Your task to perform on an android device: Open Yahoo.com Image 0: 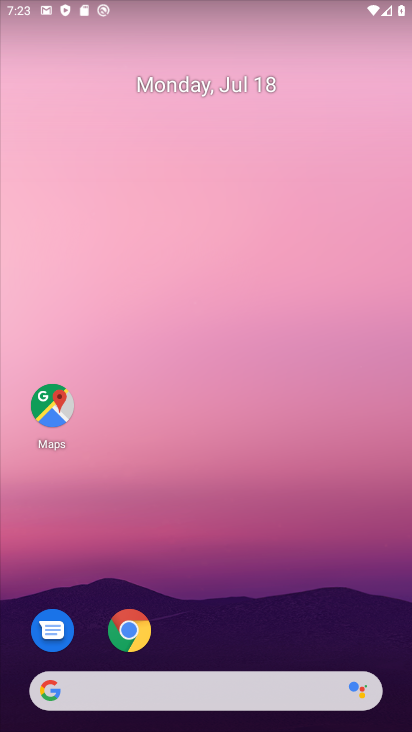
Step 0: drag from (258, 706) to (285, 293)
Your task to perform on an android device: Open Yahoo.com Image 1: 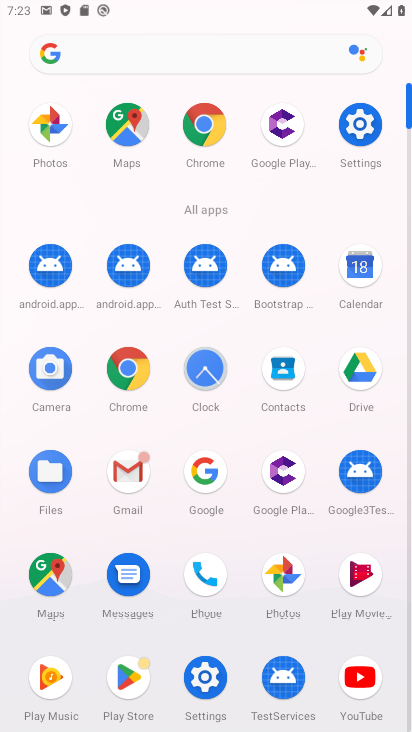
Step 1: click (211, 139)
Your task to perform on an android device: Open Yahoo.com Image 2: 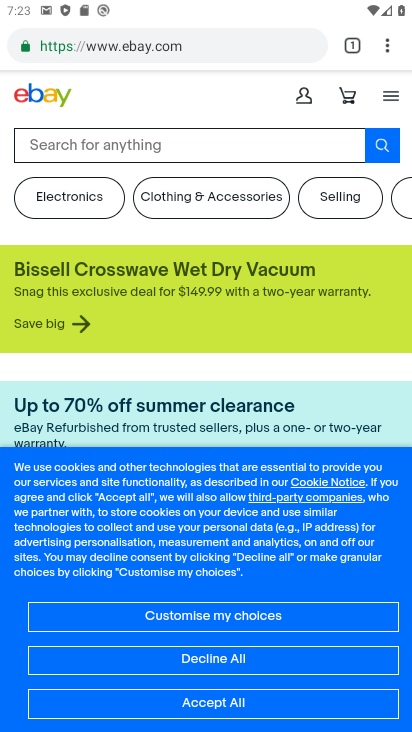
Step 2: click (353, 42)
Your task to perform on an android device: Open Yahoo.com Image 3: 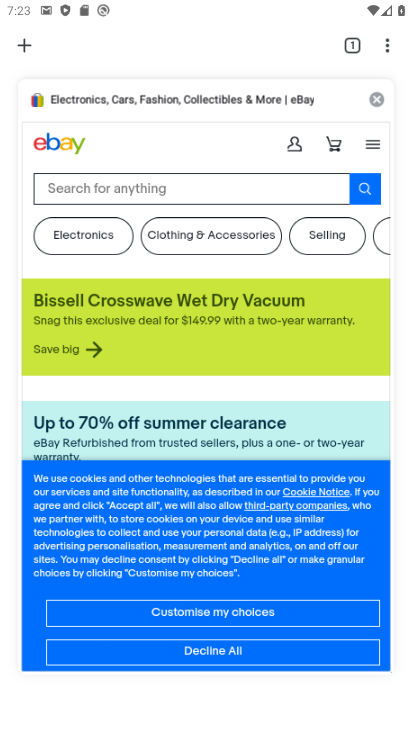
Step 3: click (21, 49)
Your task to perform on an android device: Open Yahoo.com Image 4: 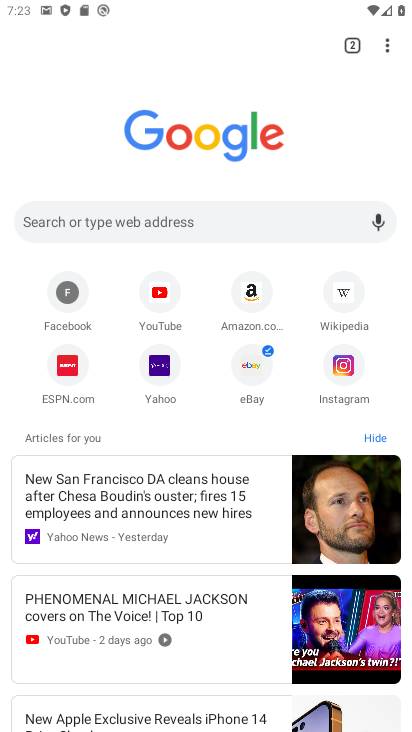
Step 4: click (160, 360)
Your task to perform on an android device: Open Yahoo.com Image 5: 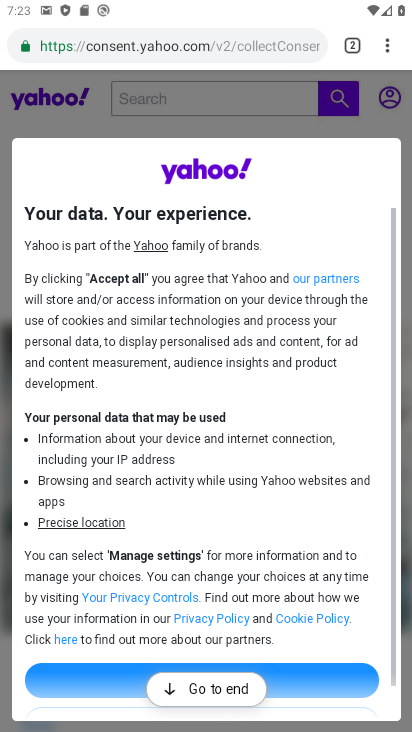
Step 5: click (225, 680)
Your task to perform on an android device: Open Yahoo.com Image 6: 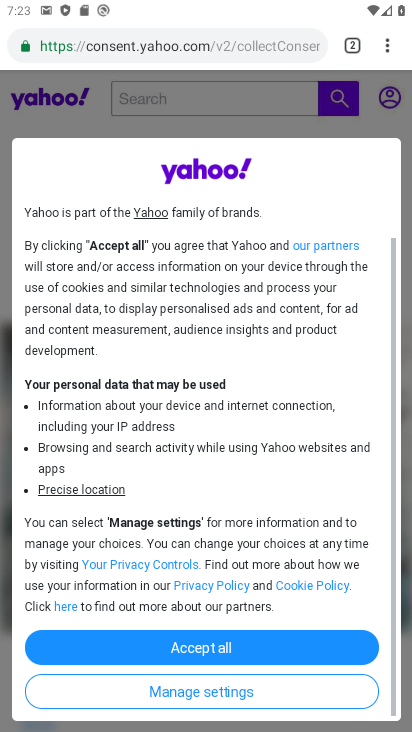
Step 6: task complete